Your task to perform on an android device: Go to Yahoo.com Image 0: 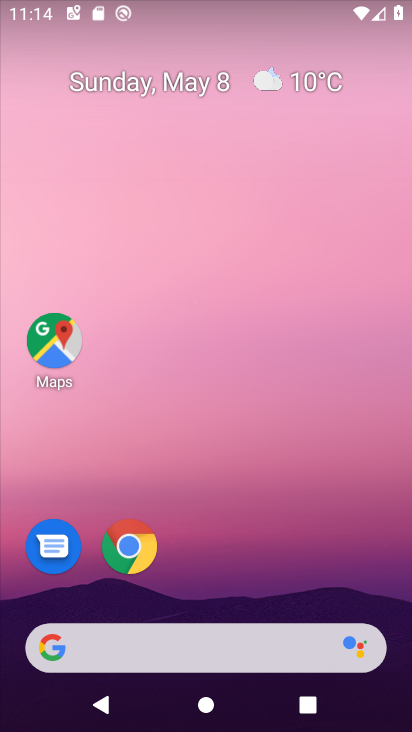
Step 0: click (127, 554)
Your task to perform on an android device: Go to Yahoo.com Image 1: 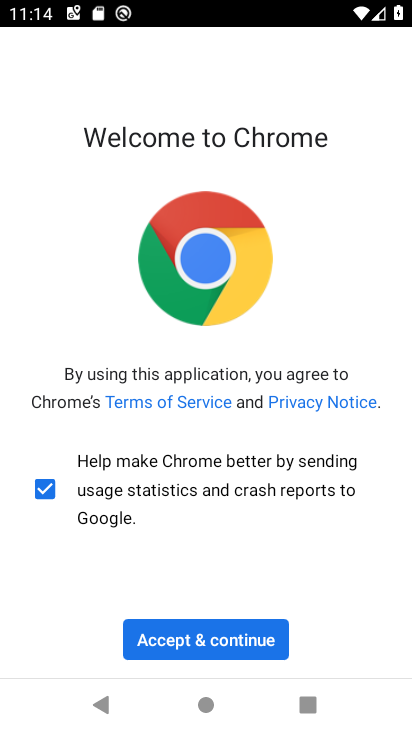
Step 1: click (243, 650)
Your task to perform on an android device: Go to Yahoo.com Image 2: 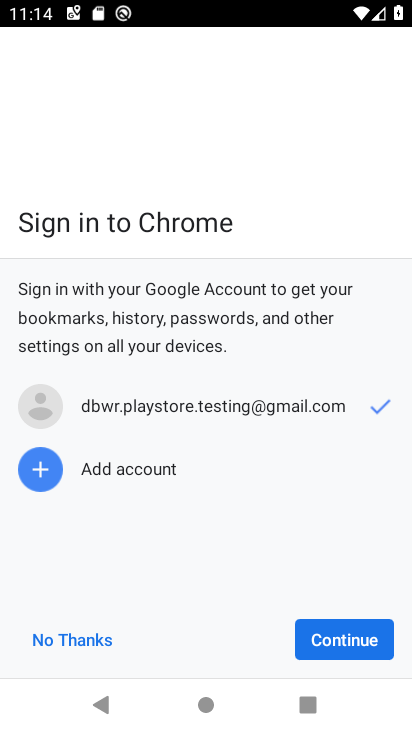
Step 2: click (381, 640)
Your task to perform on an android device: Go to Yahoo.com Image 3: 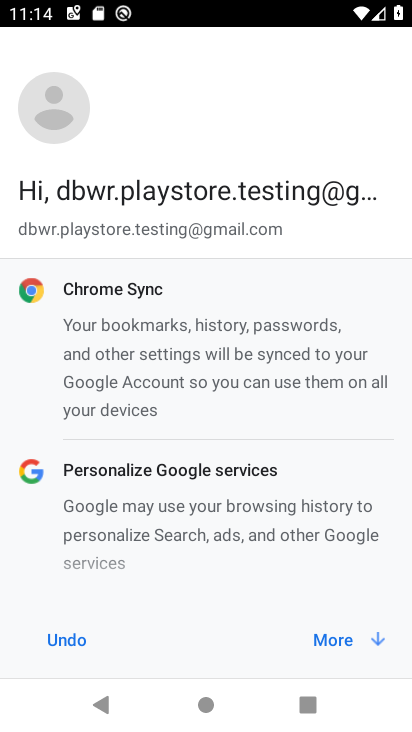
Step 3: click (339, 640)
Your task to perform on an android device: Go to Yahoo.com Image 4: 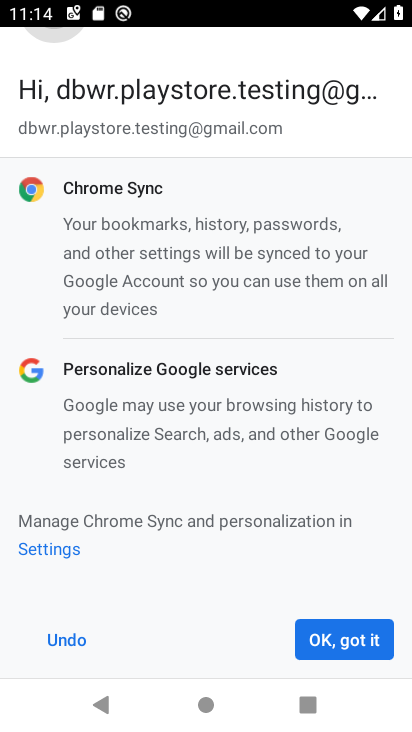
Step 4: click (339, 640)
Your task to perform on an android device: Go to Yahoo.com Image 5: 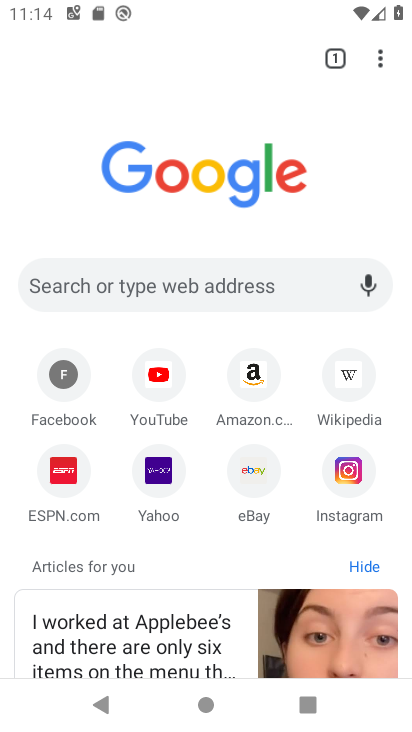
Step 5: click (159, 481)
Your task to perform on an android device: Go to Yahoo.com Image 6: 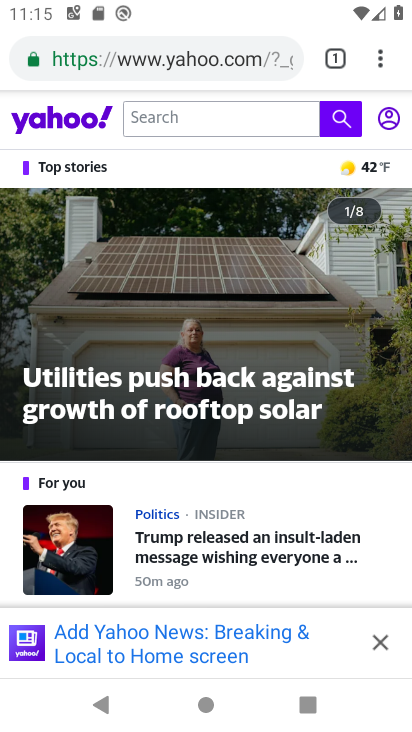
Step 6: task complete